Your task to perform on an android device: Is it going to rain tomorrow? Image 0: 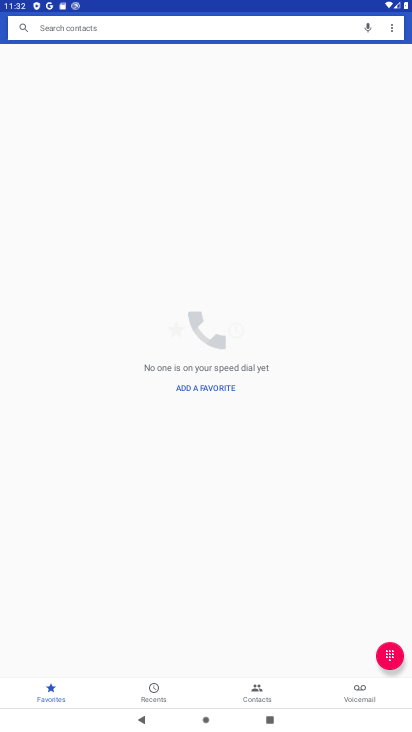
Step 0: press home button
Your task to perform on an android device: Is it going to rain tomorrow? Image 1: 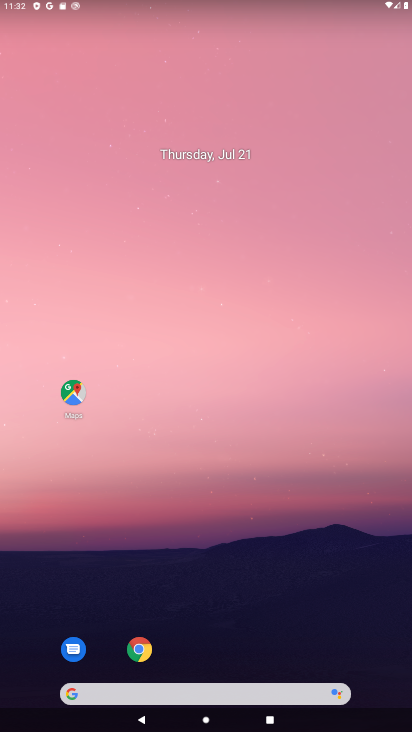
Step 1: drag from (297, 578) to (197, 1)
Your task to perform on an android device: Is it going to rain tomorrow? Image 2: 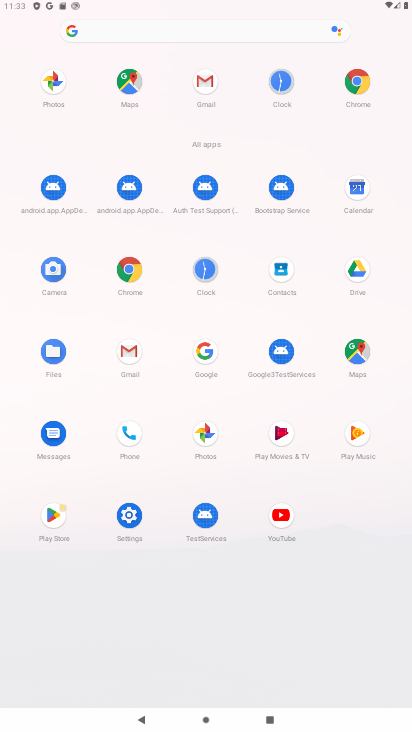
Step 2: click (356, 78)
Your task to perform on an android device: Is it going to rain tomorrow? Image 3: 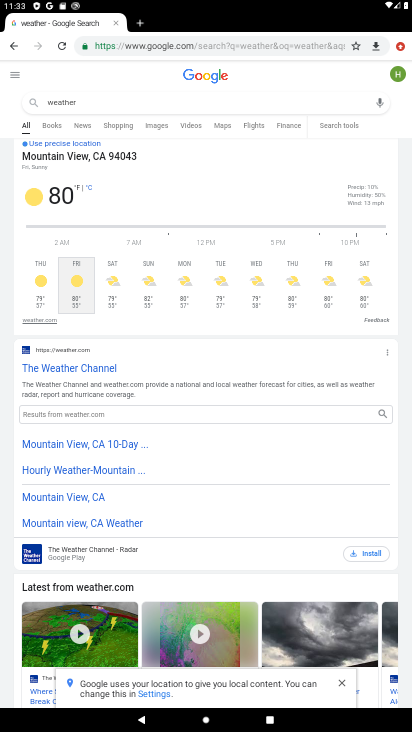
Step 3: click (283, 109)
Your task to perform on an android device: Is it going to rain tomorrow? Image 4: 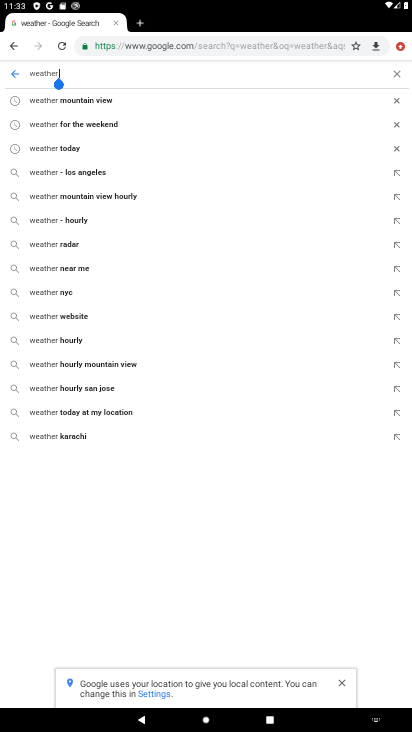
Step 4: click (400, 79)
Your task to perform on an android device: Is it going to rain tomorrow? Image 5: 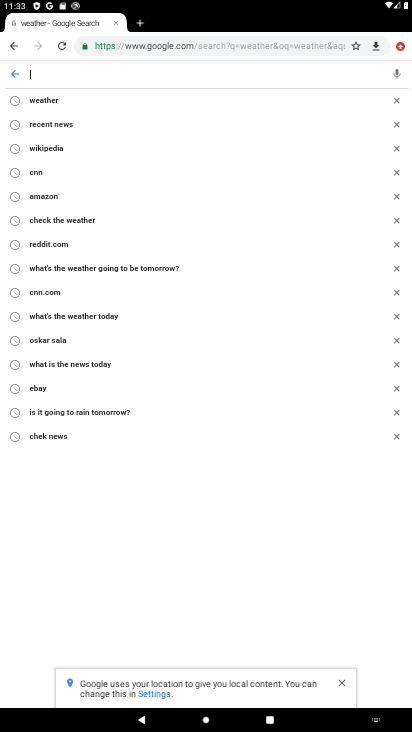
Step 5: type "weather"
Your task to perform on an android device: Is it going to rain tomorrow? Image 6: 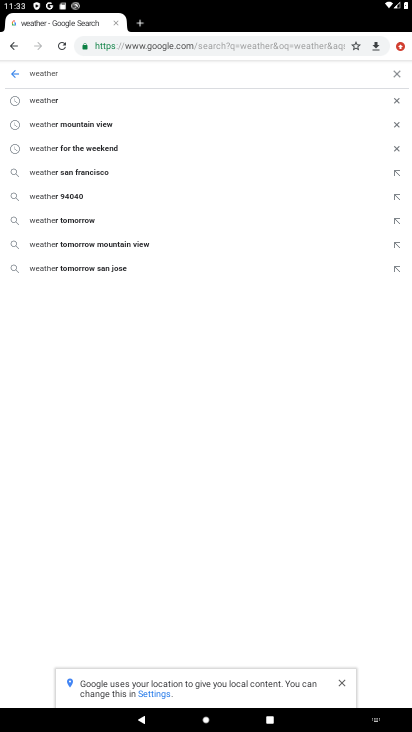
Step 6: click (90, 100)
Your task to perform on an android device: Is it going to rain tomorrow? Image 7: 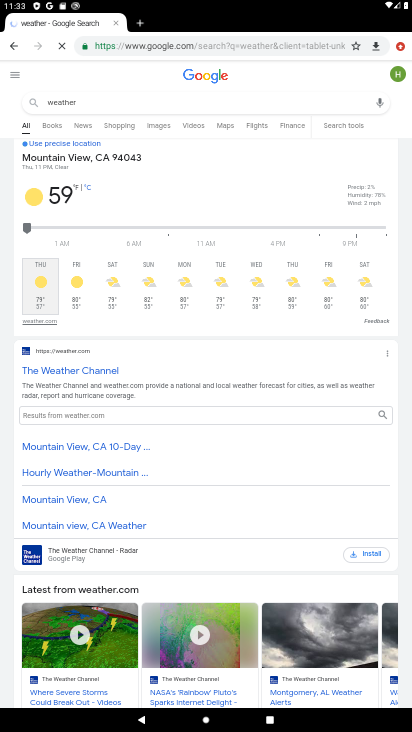
Step 7: click (81, 275)
Your task to perform on an android device: Is it going to rain tomorrow? Image 8: 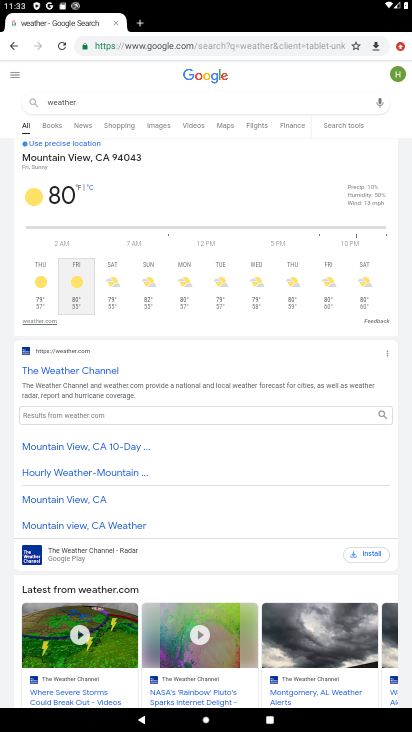
Step 8: task complete